Your task to perform on an android device: Search for a sofa on article.com Image 0: 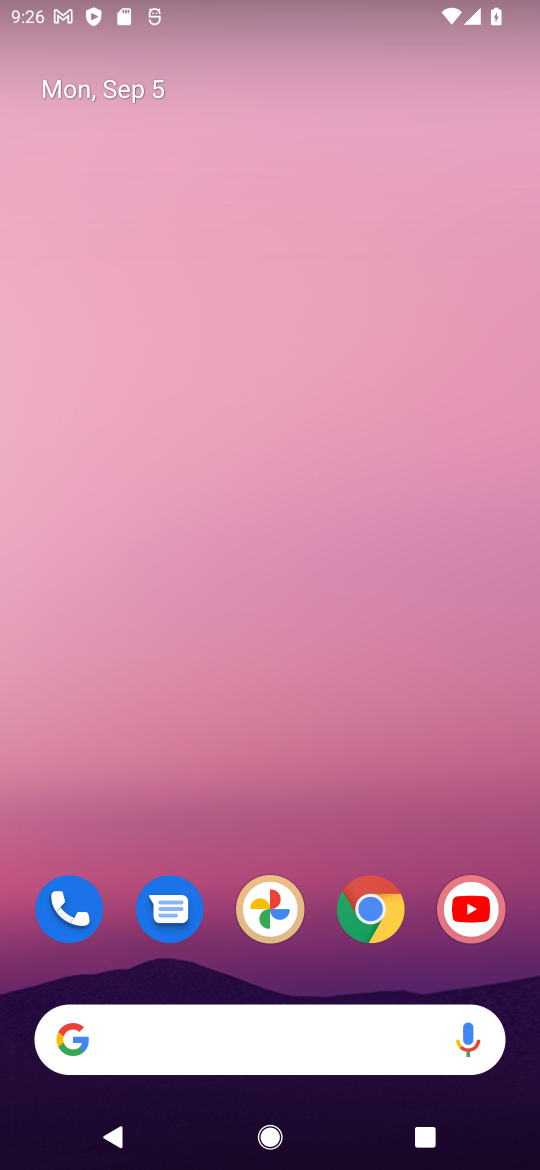
Step 0: click (361, 904)
Your task to perform on an android device: Search for a sofa on article.com Image 1: 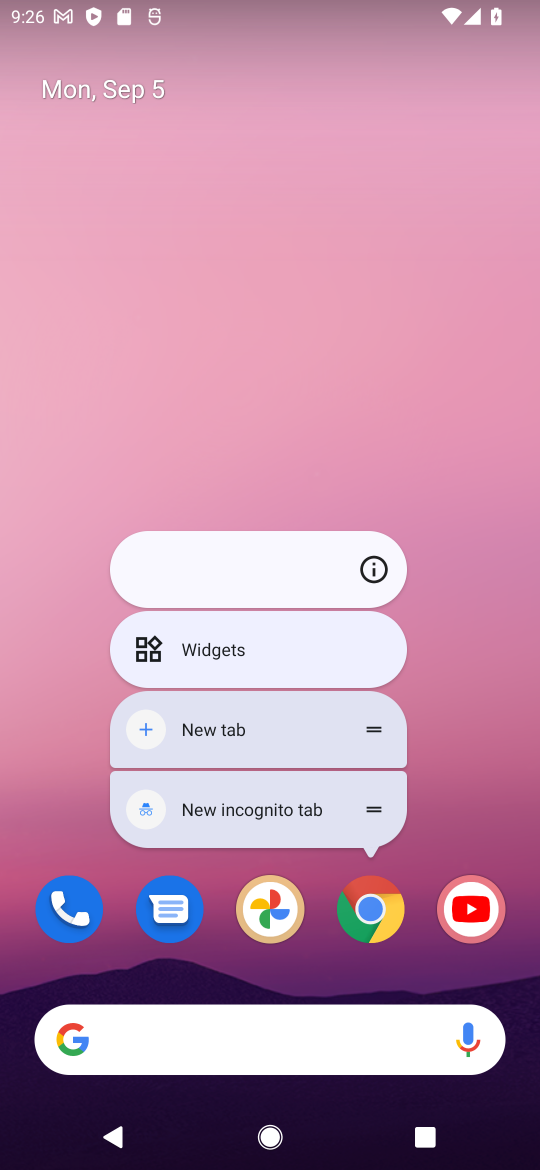
Step 1: click (379, 926)
Your task to perform on an android device: Search for a sofa on article.com Image 2: 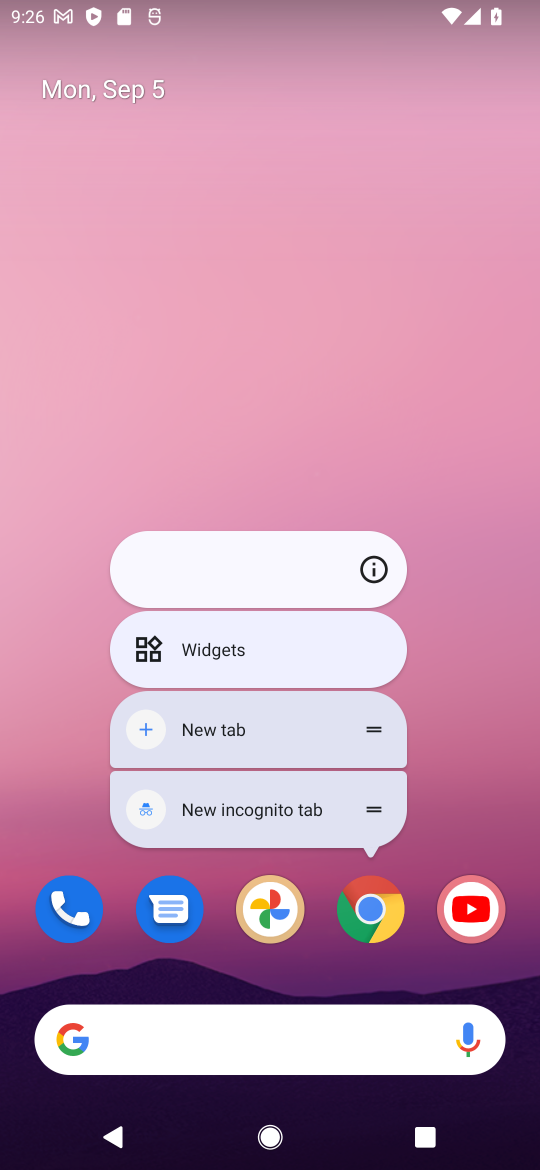
Step 2: click (379, 926)
Your task to perform on an android device: Search for a sofa on article.com Image 3: 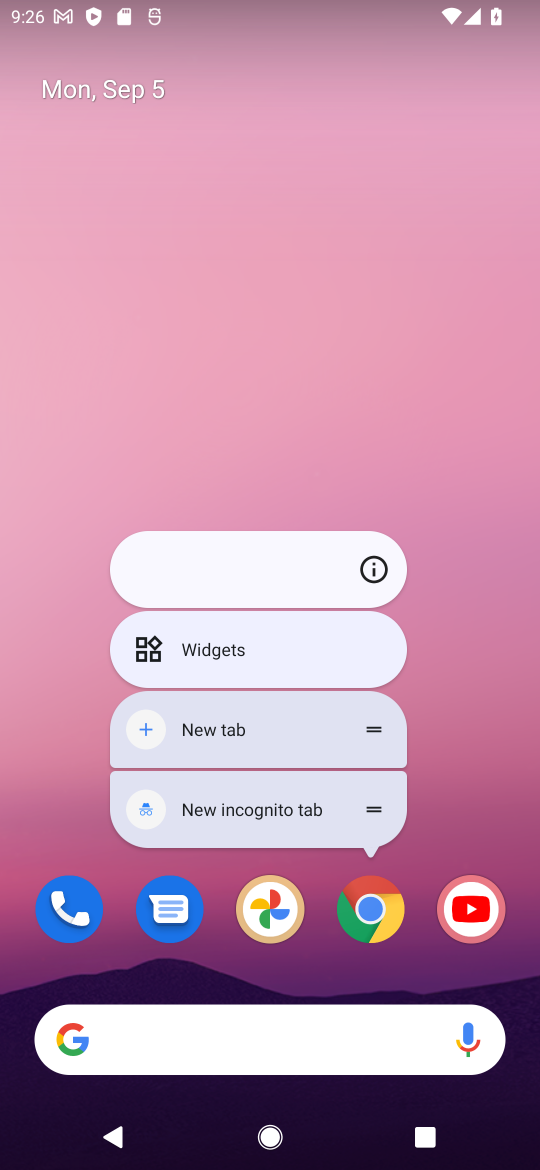
Step 3: click (379, 926)
Your task to perform on an android device: Search for a sofa on article.com Image 4: 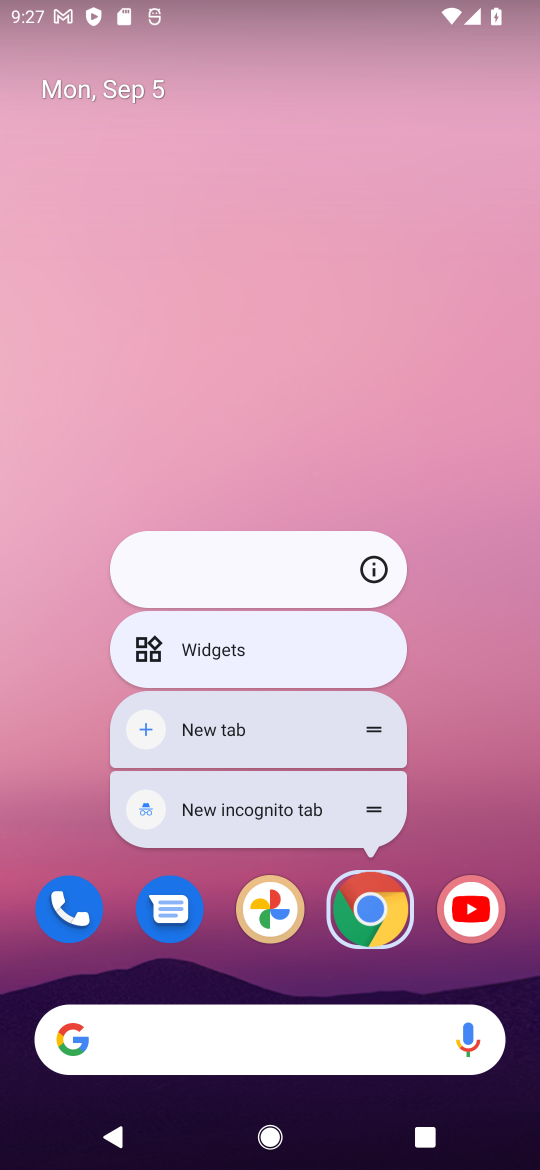
Step 4: click (363, 907)
Your task to perform on an android device: Search for a sofa on article.com Image 5: 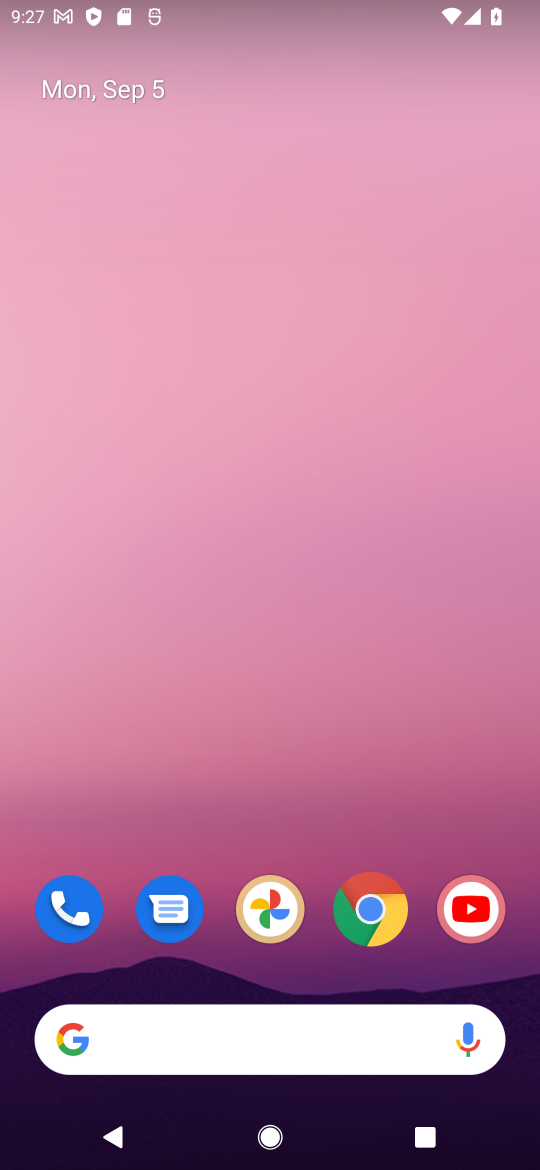
Step 5: click (363, 907)
Your task to perform on an android device: Search for a sofa on article.com Image 6: 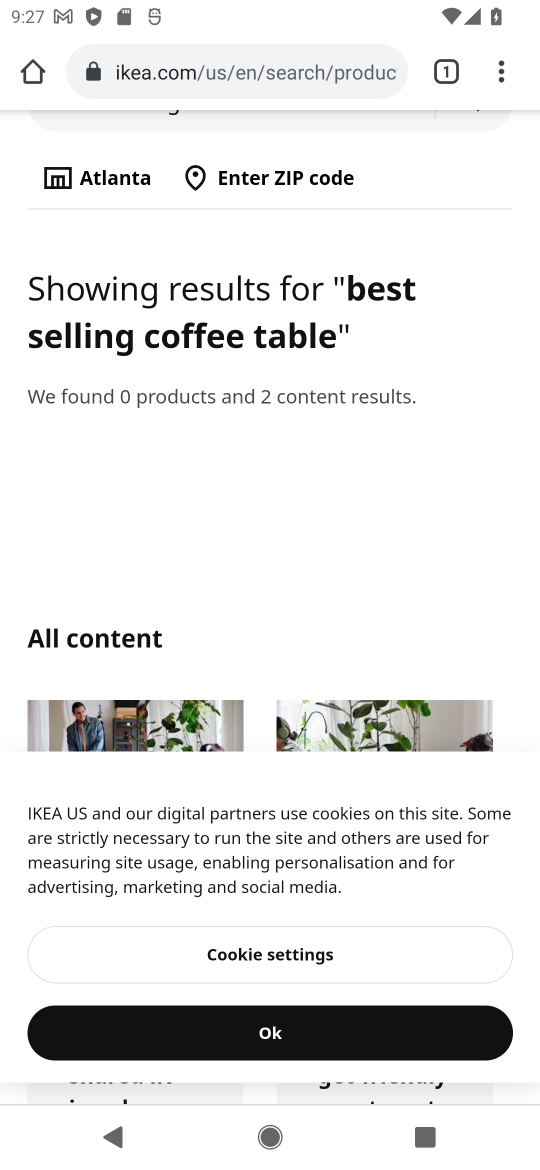
Step 6: click (227, 78)
Your task to perform on an android device: Search for a sofa on article.com Image 7: 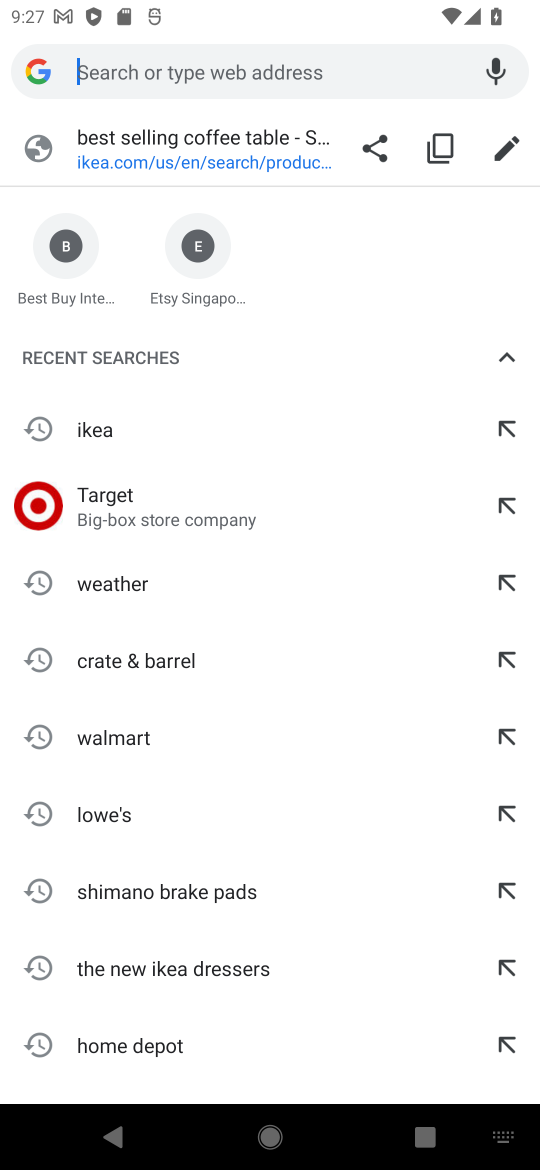
Step 7: type "article.com"
Your task to perform on an android device: Search for a sofa on article.com Image 8: 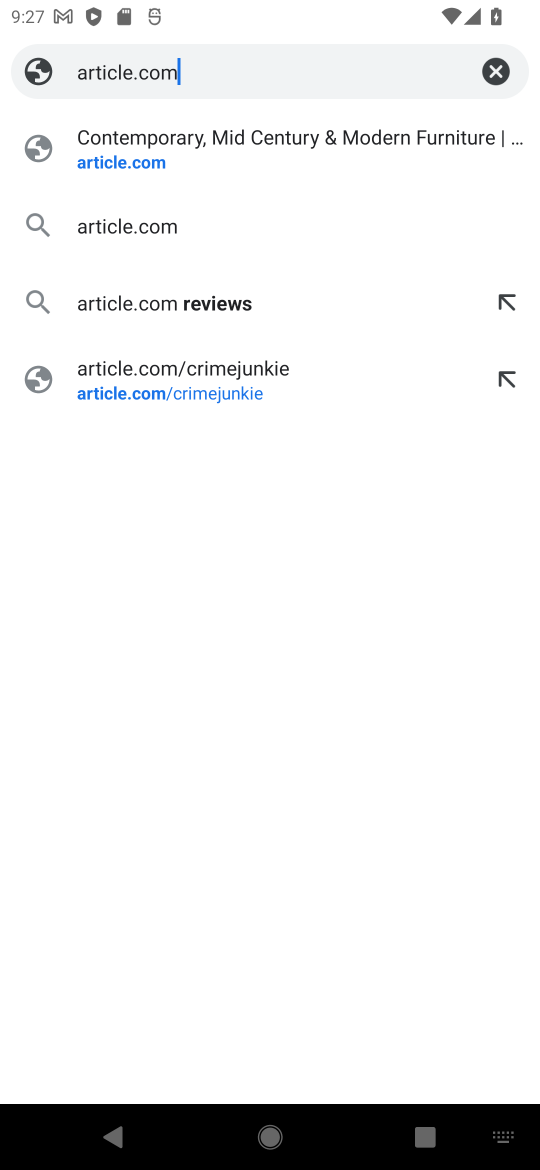
Step 8: click (284, 150)
Your task to perform on an android device: Search for a sofa on article.com Image 9: 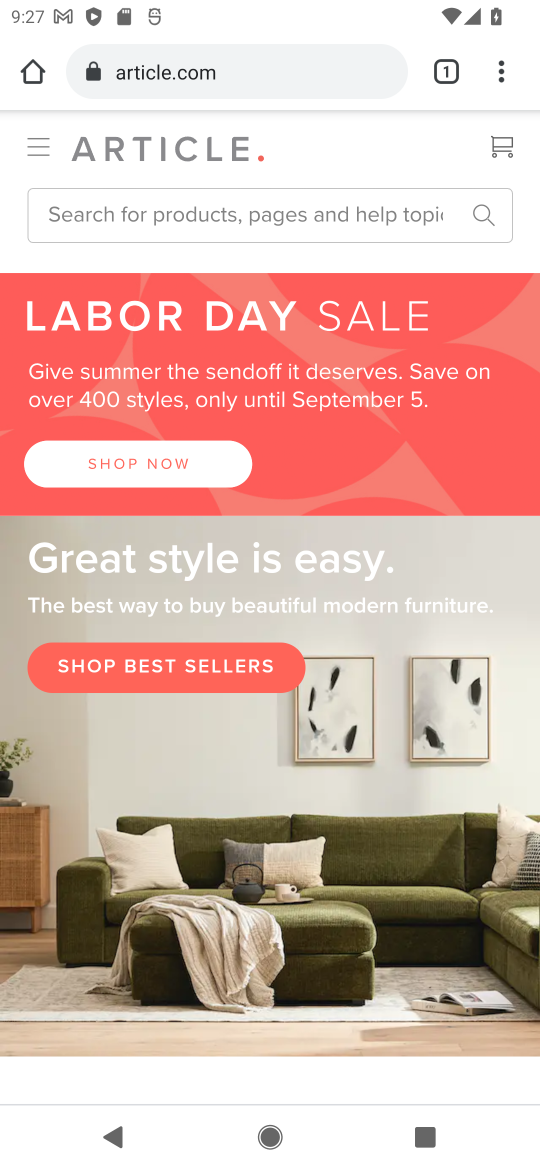
Step 9: click (308, 227)
Your task to perform on an android device: Search for a sofa on article.com Image 10: 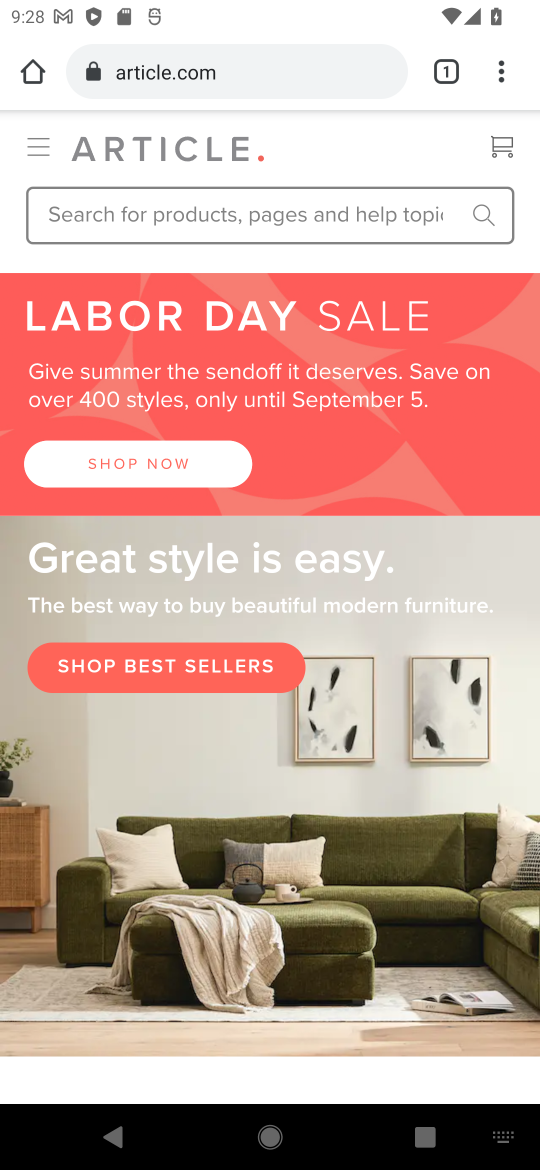
Step 10: type "sofa"
Your task to perform on an android device: Search for a sofa on article.com Image 11: 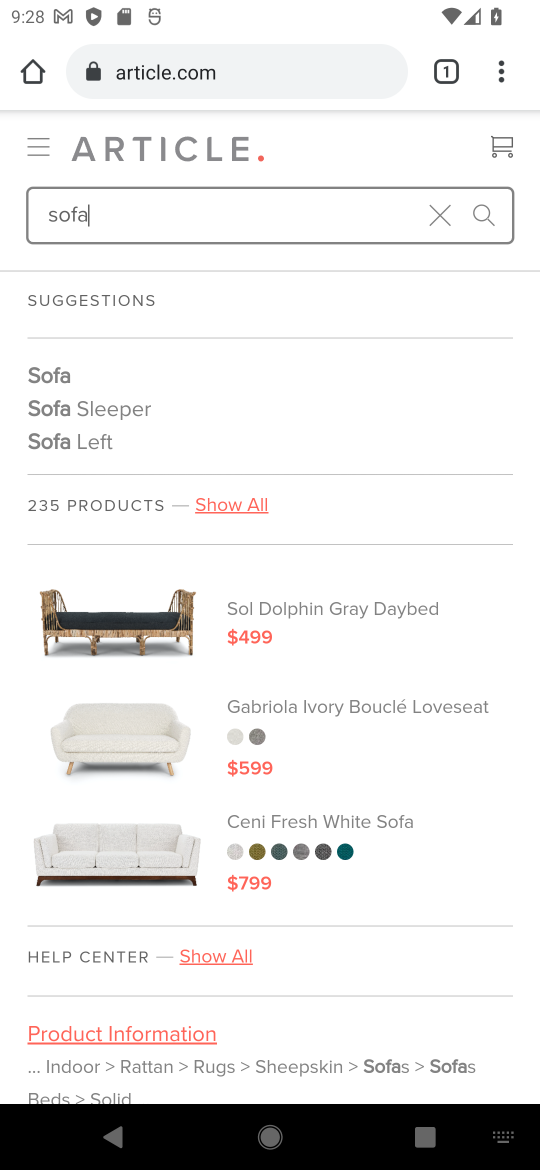
Step 11: click (66, 377)
Your task to perform on an android device: Search for a sofa on article.com Image 12: 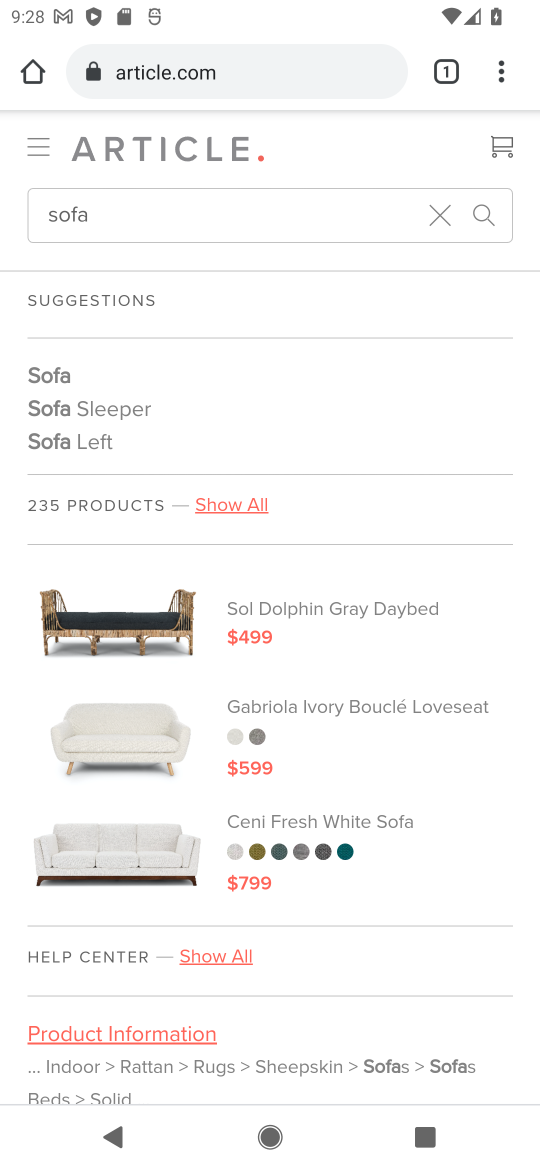
Step 12: click (66, 377)
Your task to perform on an android device: Search for a sofa on article.com Image 13: 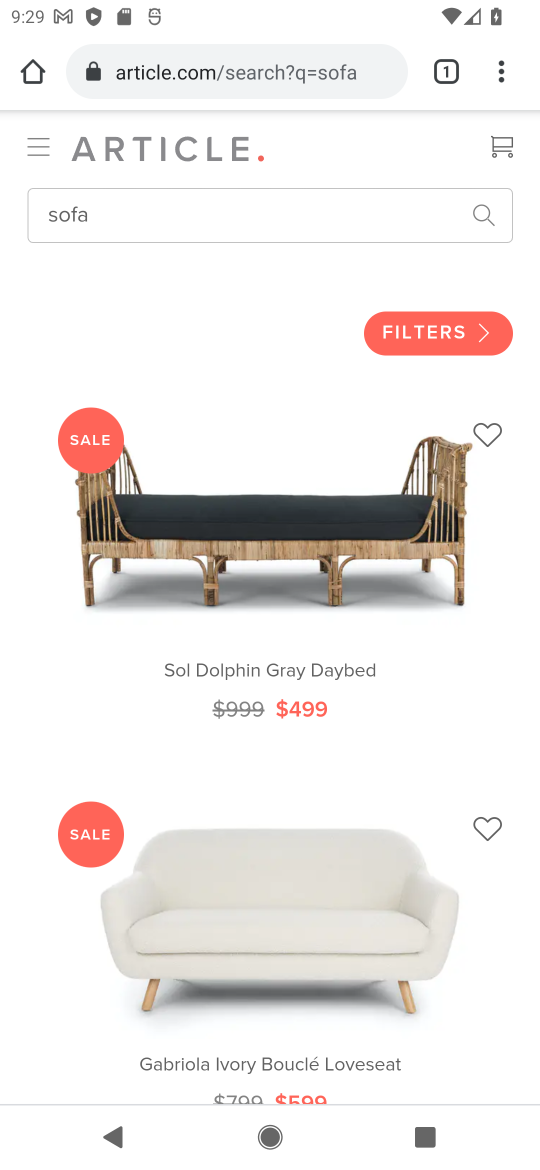
Step 13: task complete